Your task to perform on an android device: Go to Reddit.com Image 0: 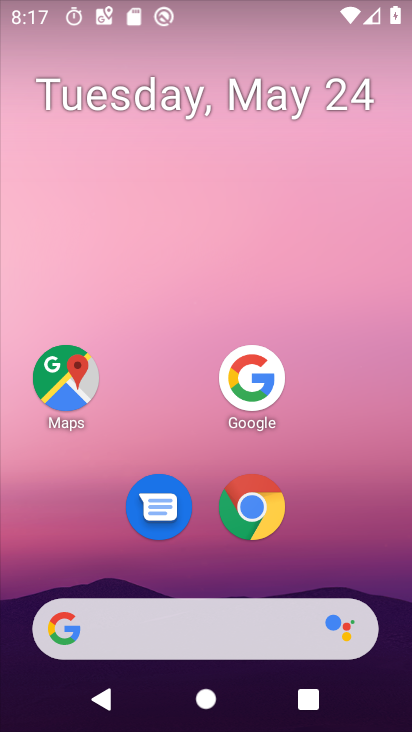
Step 0: press home button
Your task to perform on an android device: Go to Reddit.com Image 1: 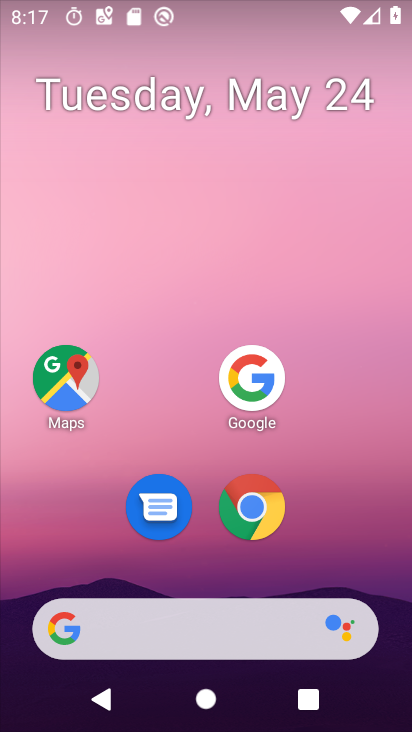
Step 1: click (258, 510)
Your task to perform on an android device: Go to Reddit.com Image 2: 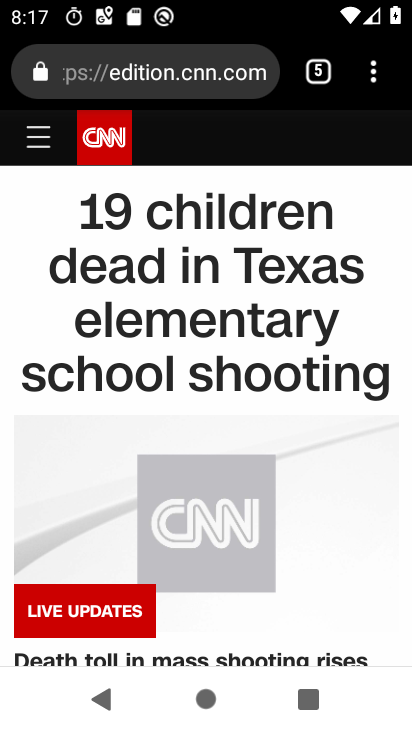
Step 2: drag from (368, 81) to (207, 130)
Your task to perform on an android device: Go to Reddit.com Image 3: 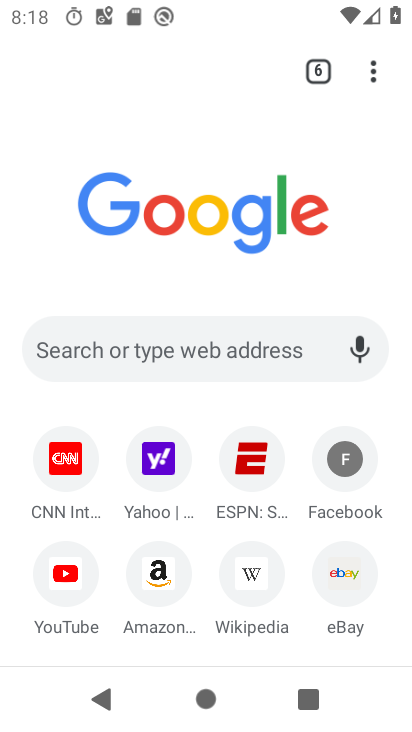
Step 3: click (126, 343)
Your task to perform on an android device: Go to Reddit.com Image 4: 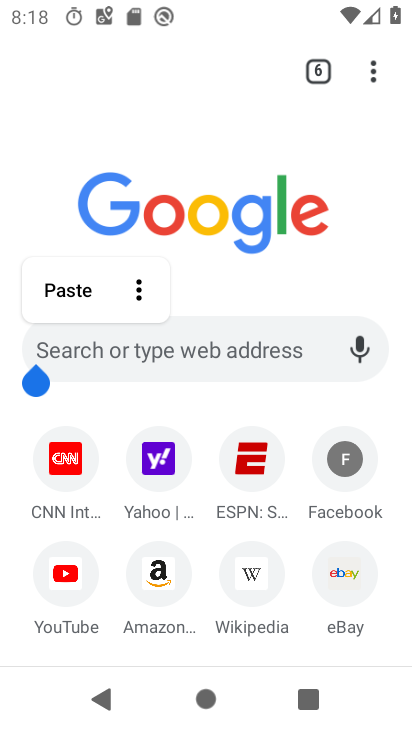
Step 4: click (161, 355)
Your task to perform on an android device: Go to Reddit.com Image 5: 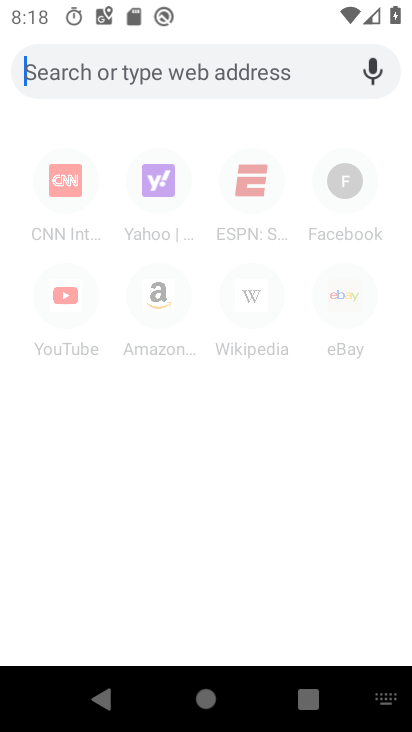
Step 5: type "reddit.com"
Your task to perform on an android device: Go to Reddit.com Image 6: 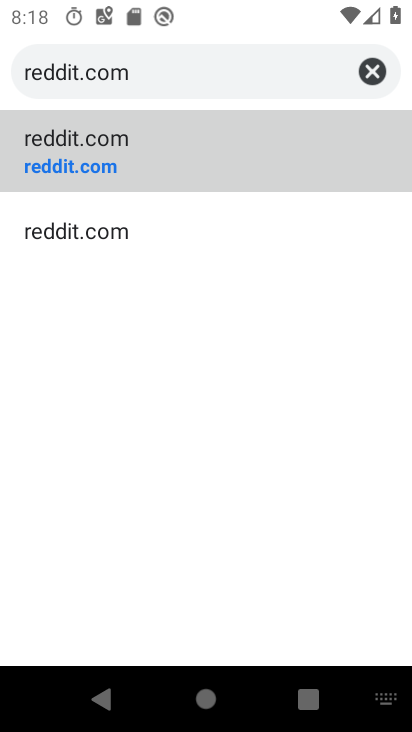
Step 6: click (39, 162)
Your task to perform on an android device: Go to Reddit.com Image 7: 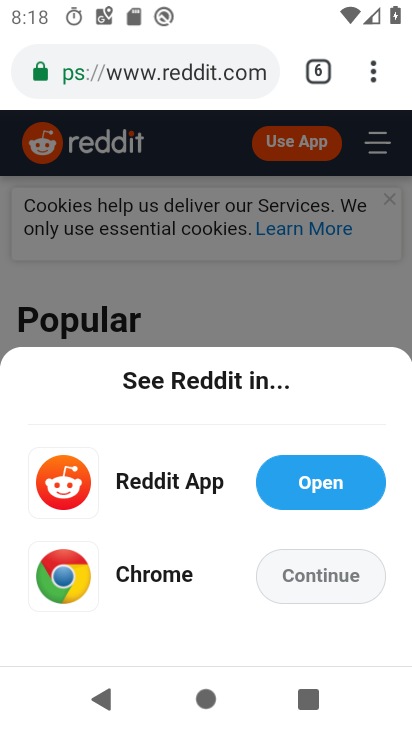
Step 7: task complete